Your task to perform on an android device: change keyboard looks Image 0: 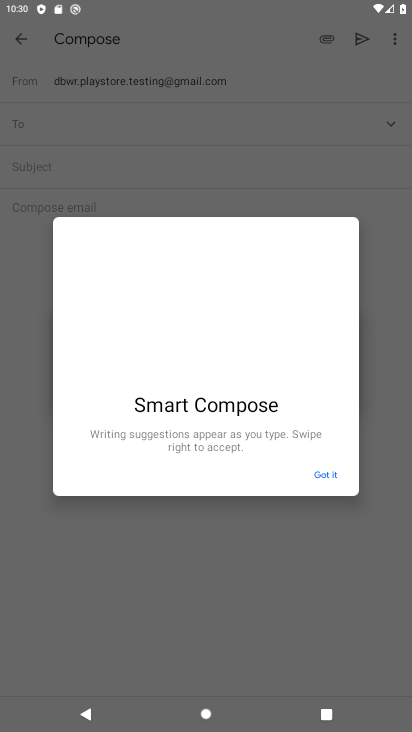
Step 0: press home button
Your task to perform on an android device: change keyboard looks Image 1: 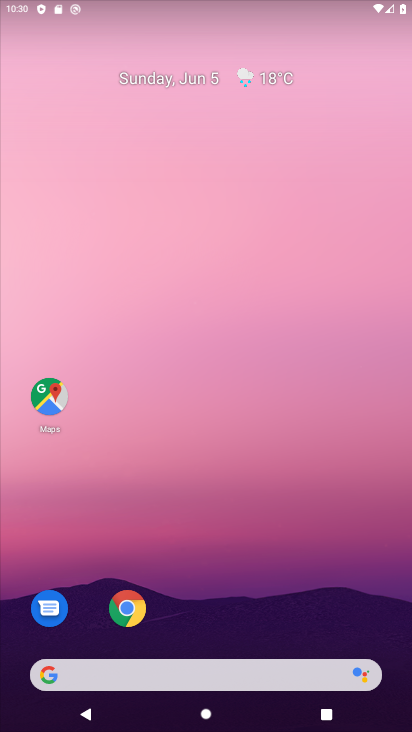
Step 1: drag from (289, 603) to (290, 16)
Your task to perform on an android device: change keyboard looks Image 2: 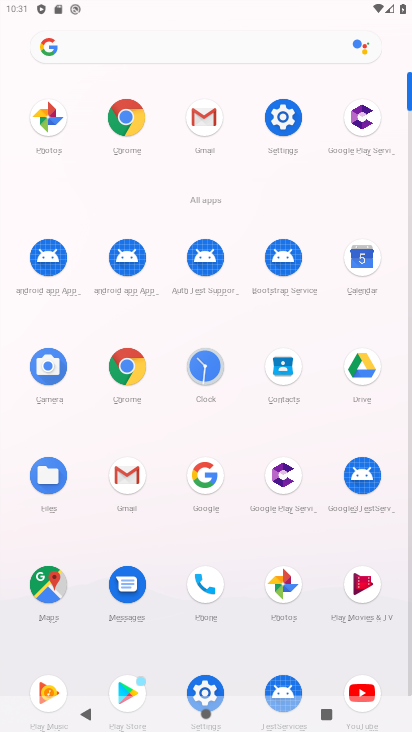
Step 2: click (284, 118)
Your task to perform on an android device: change keyboard looks Image 3: 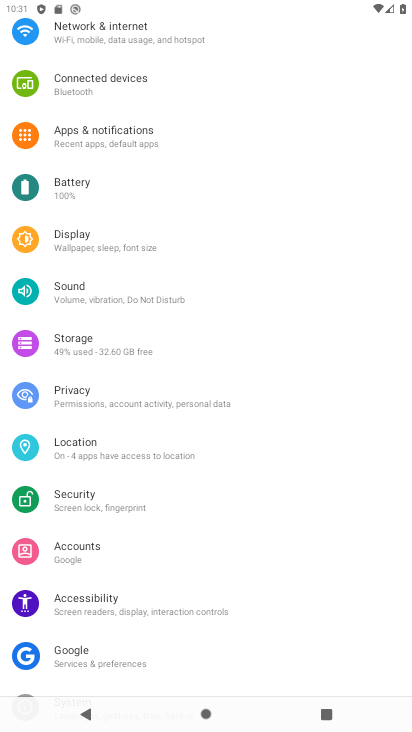
Step 3: drag from (58, 663) to (7, 278)
Your task to perform on an android device: change keyboard looks Image 4: 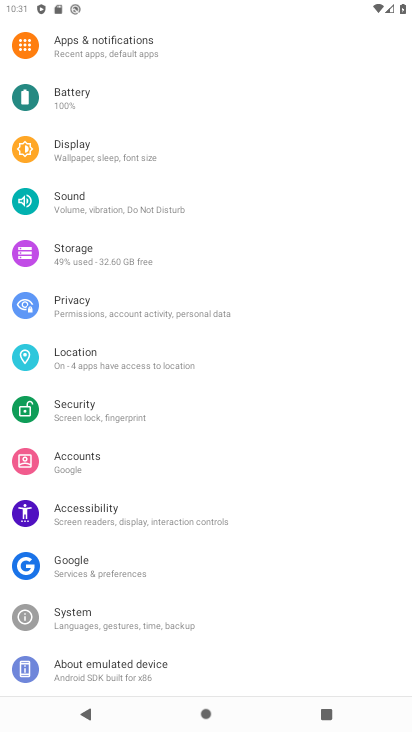
Step 4: click (67, 607)
Your task to perform on an android device: change keyboard looks Image 5: 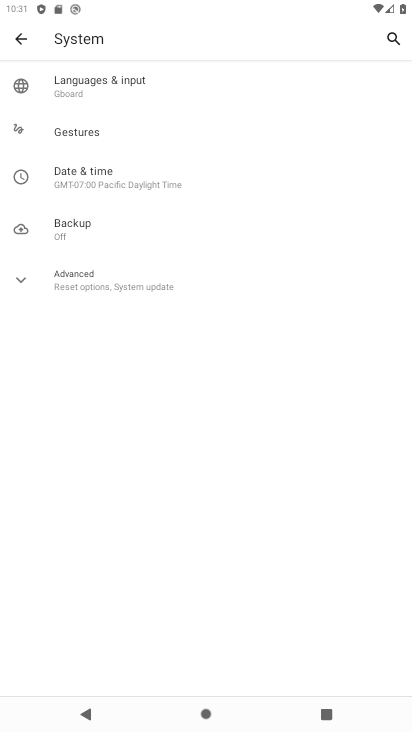
Step 5: click (92, 80)
Your task to perform on an android device: change keyboard looks Image 6: 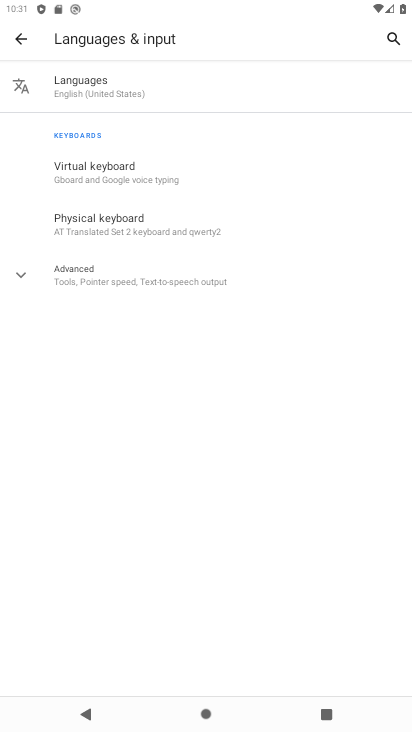
Step 6: click (88, 178)
Your task to perform on an android device: change keyboard looks Image 7: 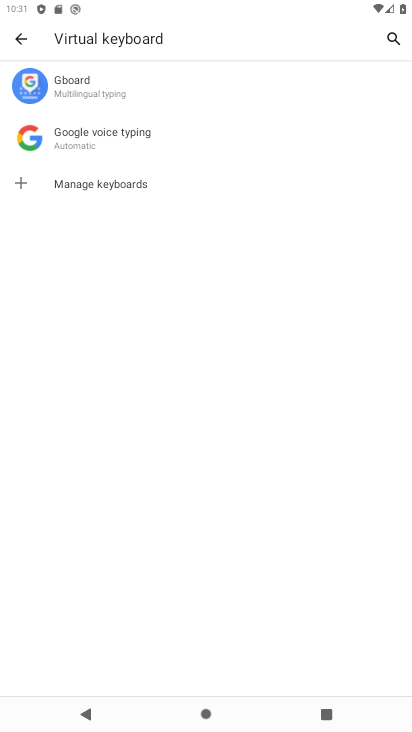
Step 7: click (87, 98)
Your task to perform on an android device: change keyboard looks Image 8: 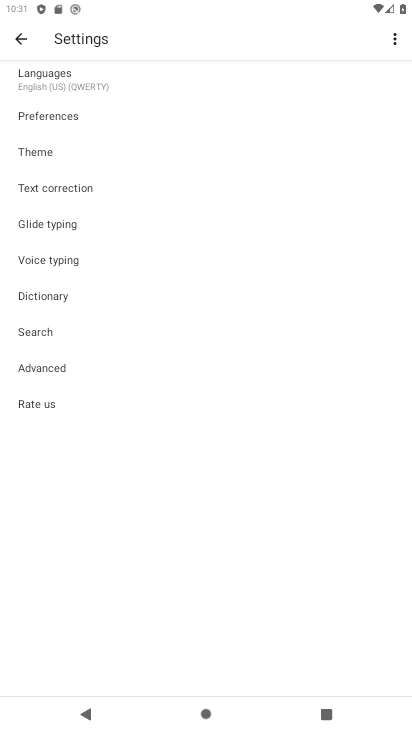
Step 8: drag from (118, 258) to (88, 98)
Your task to perform on an android device: change keyboard looks Image 9: 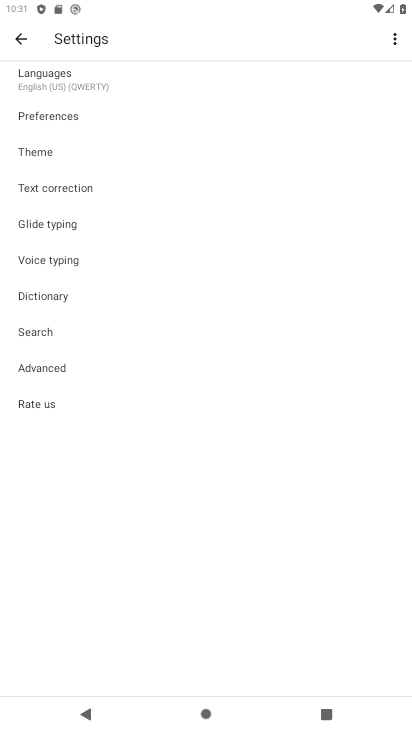
Step 9: click (72, 141)
Your task to perform on an android device: change keyboard looks Image 10: 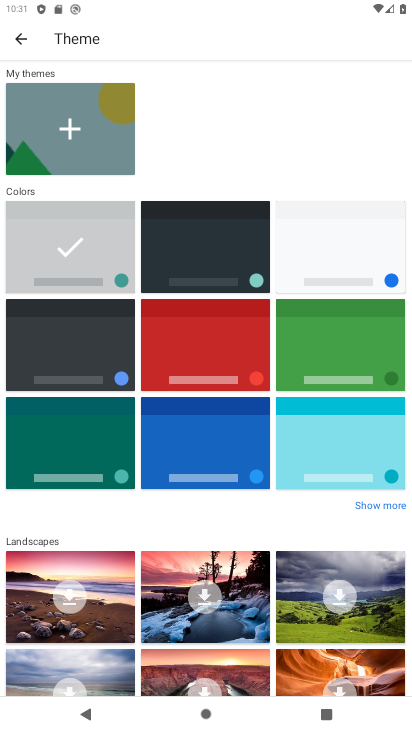
Step 10: click (197, 393)
Your task to perform on an android device: change keyboard looks Image 11: 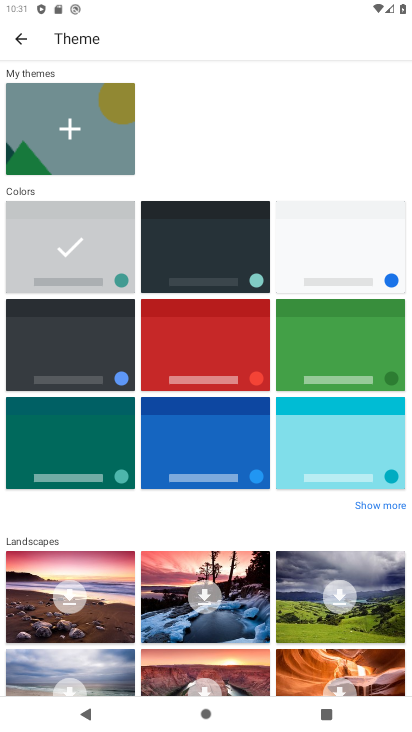
Step 11: click (206, 457)
Your task to perform on an android device: change keyboard looks Image 12: 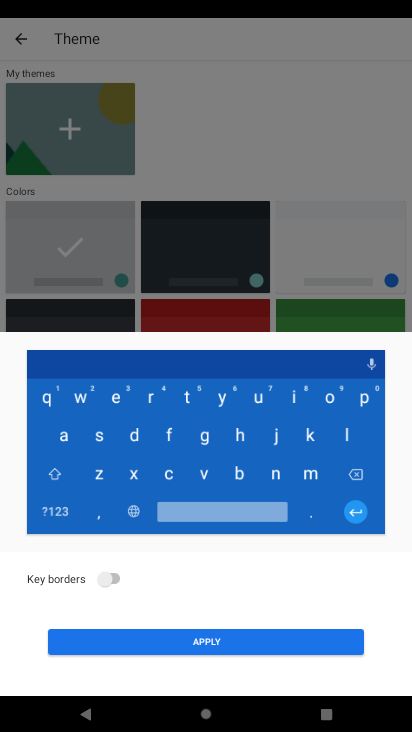
Step 12: click (191, 645)
Your task to perform on an android device: change keyboard looks Image 13: 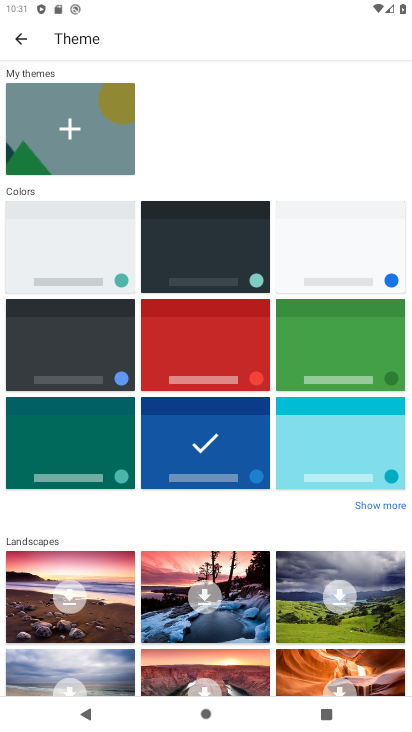
Step 13: task complete